Your task to perform on an android device: open app "Firefox Browser" (install if not already installed), go to login, and select forgot password Image 0: 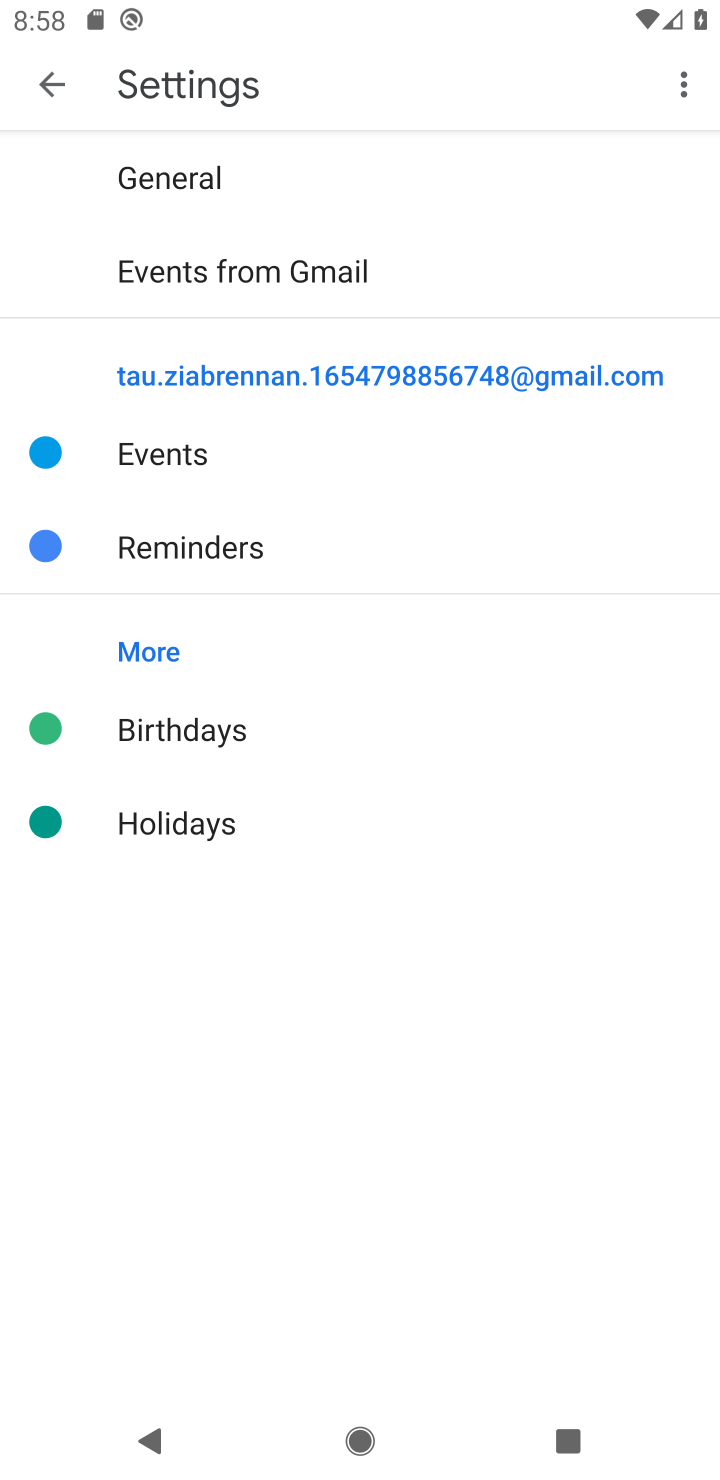
Step 0: press back button
Your task to perform on an android device: open app "Firefox Browser" (install if not already installed), go to login, and select forgot password Image 1: 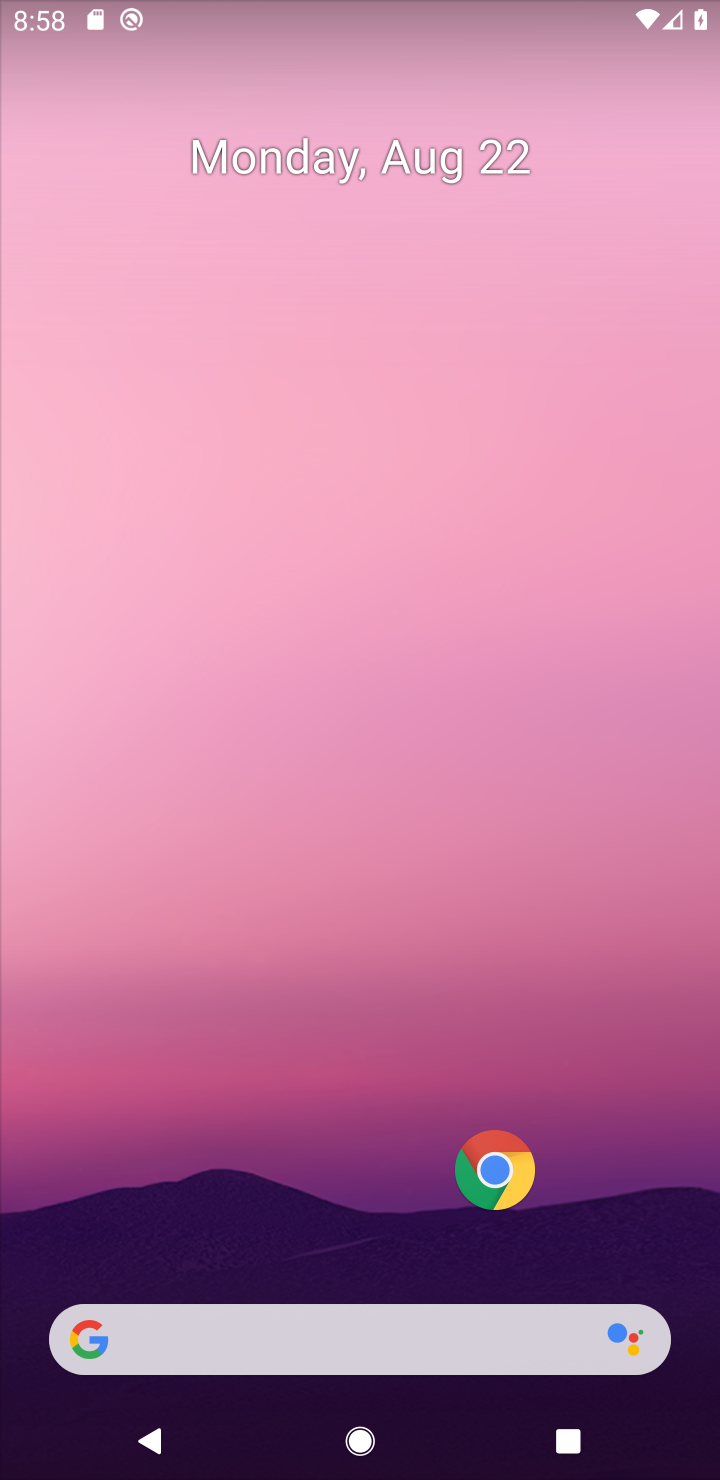
Step 1: drag from (245, 1248) to (256, 78)
Your task to perform on an android device: open app "Firefox Browser" (install if not already installed), go to login, and select forgot password Image 2: 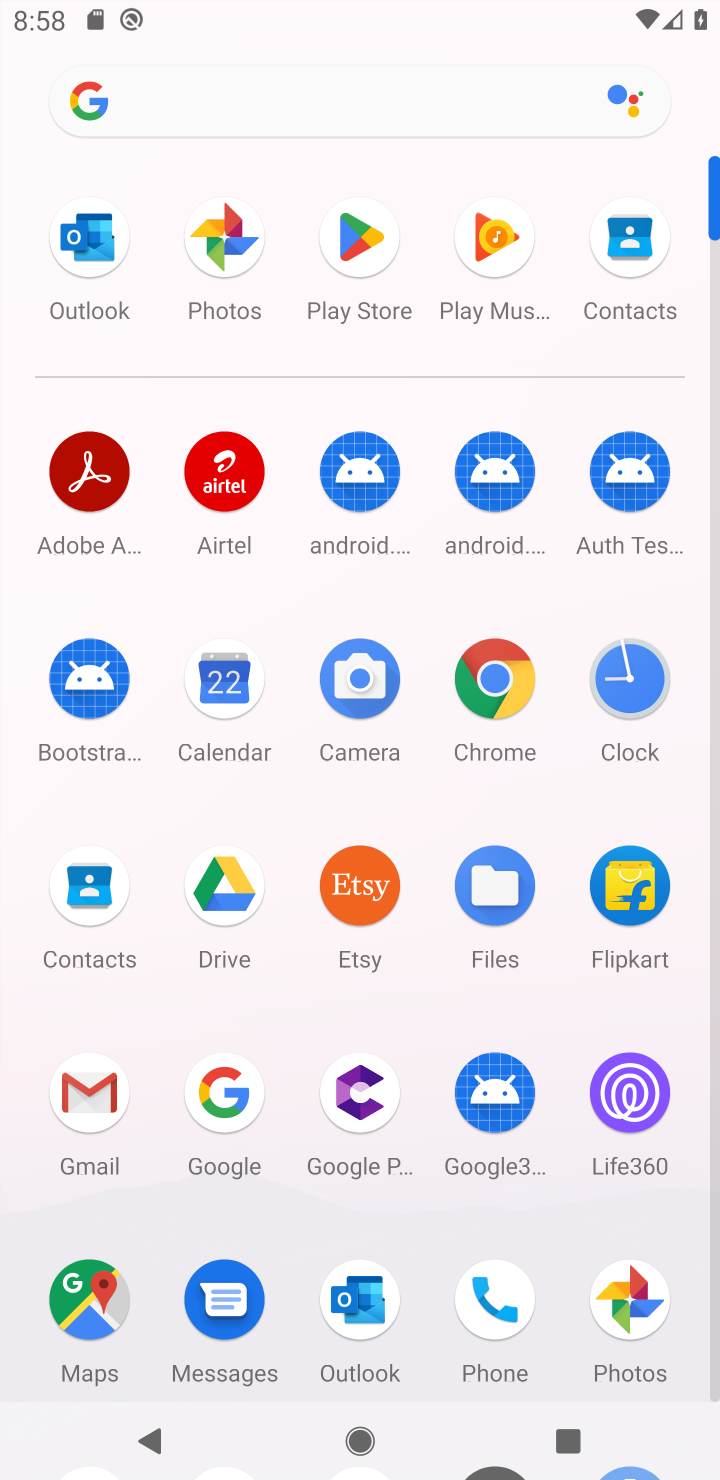
Step 2: click (350, 285)
Your task to perform on an android device: open app "Firefox Browser" (install if not already installed), go to login, and select forgot password Image 3: 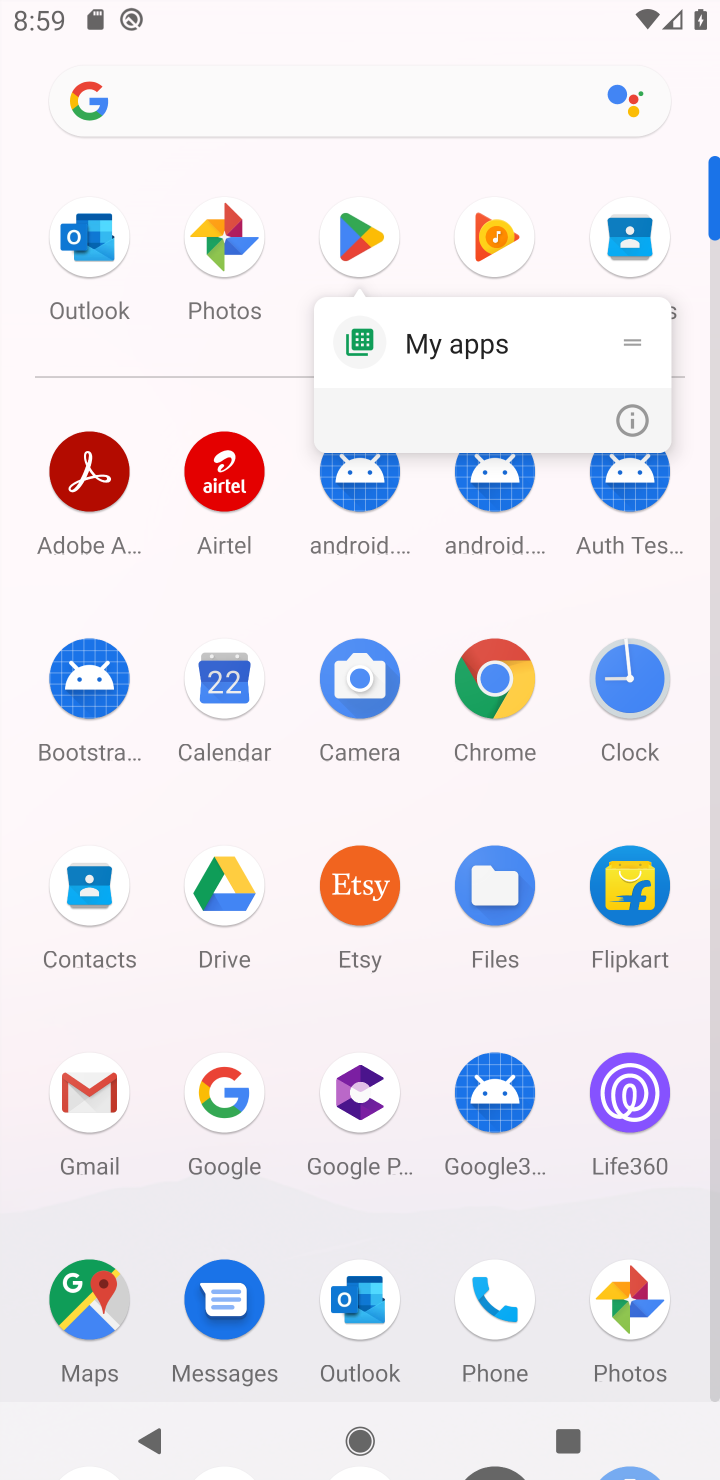
Step 3: click (370, 222)
Your task to perform on an android device: open app "Firefox Browser" (install if not already installed), go to login, and select forgot password Image 4: 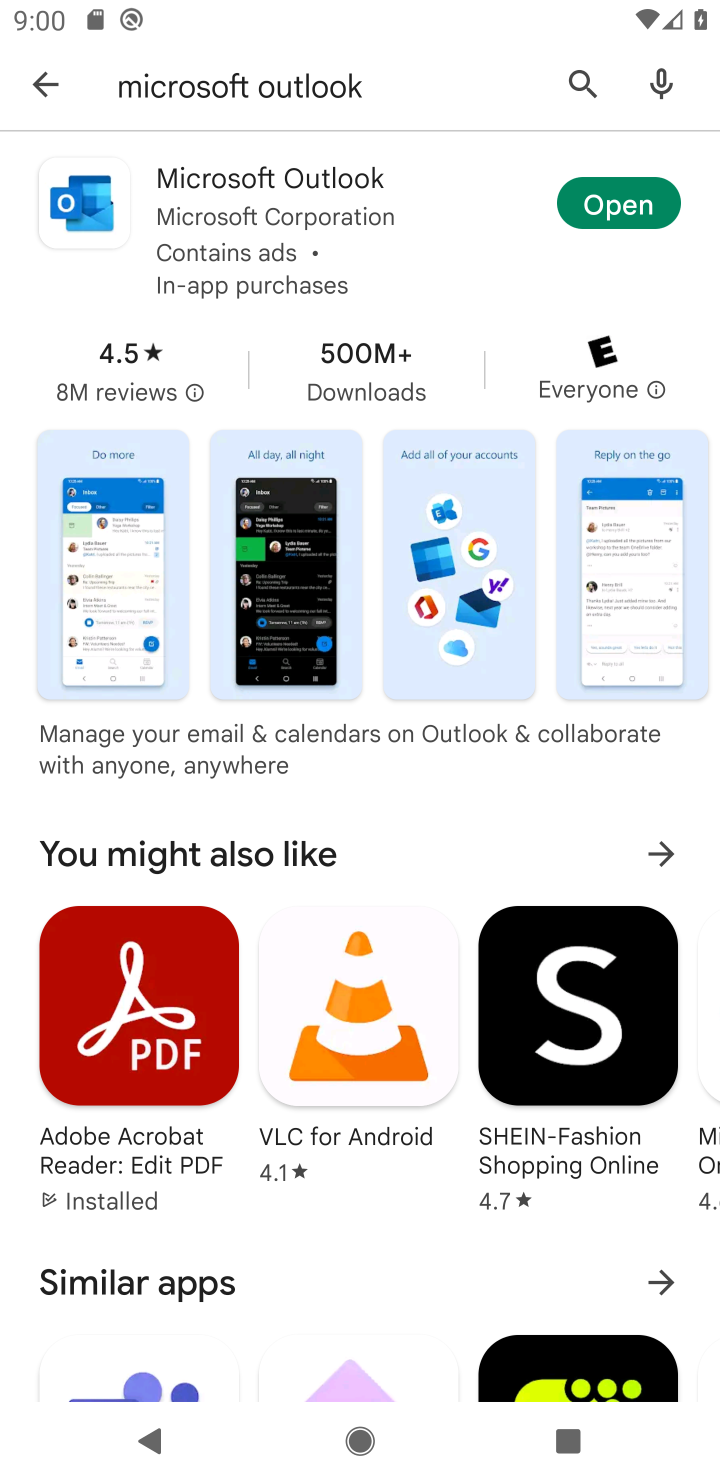
Step 4: click (592, 79)
Your task to perform on an android device: open app "Firefox Browser" (install if not already installed), go to login, and select forgot password Image 5: 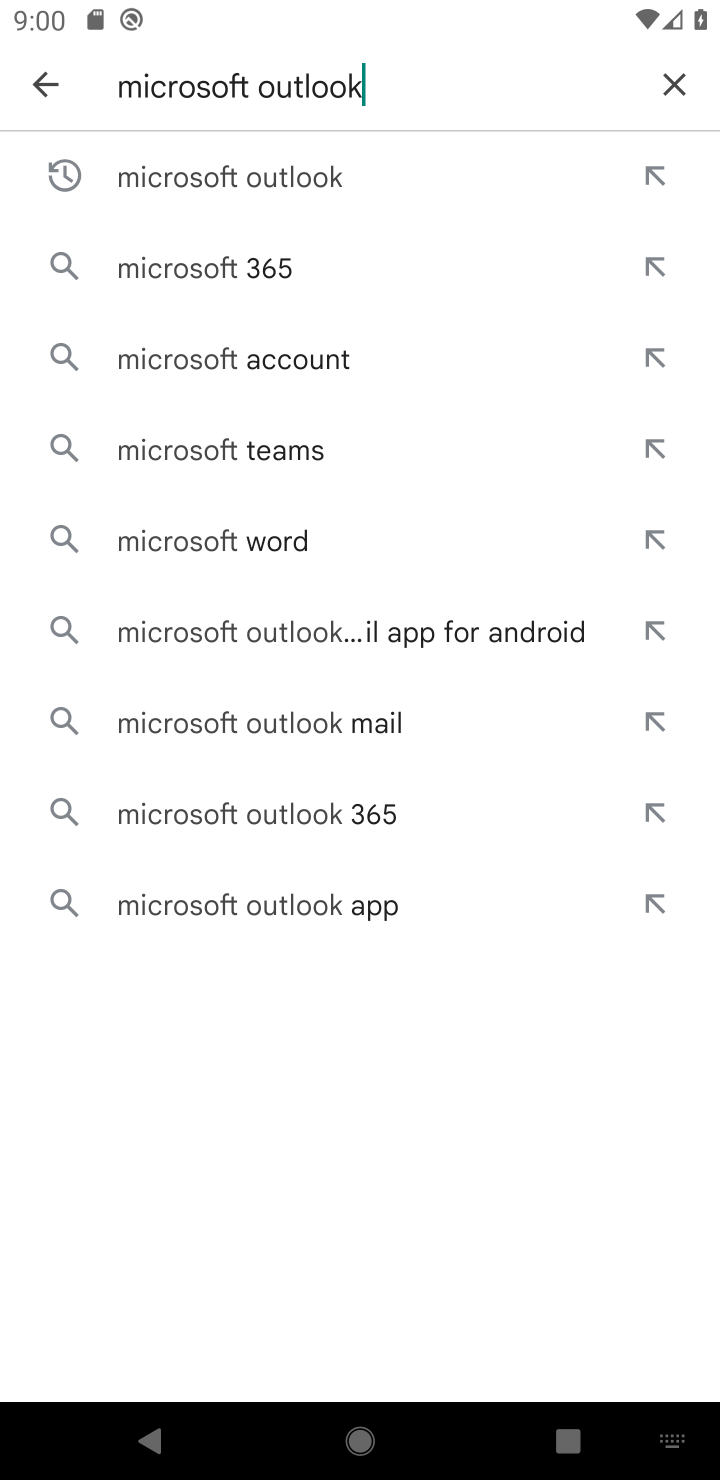
Step 5: click (664, 83)
Your task to perform on an android device: open app "Firefox Browser" (install if not already installed), go to login, and select forgot password Image 6: 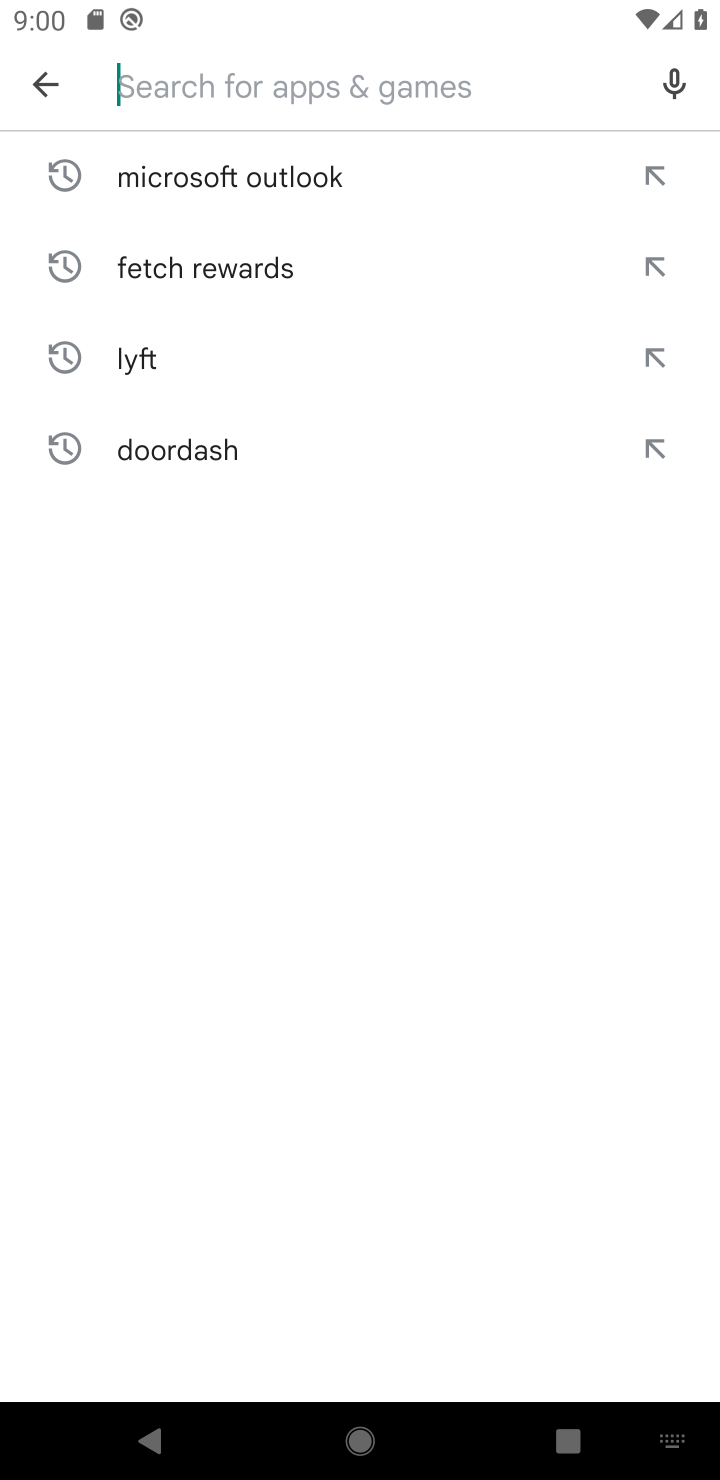
Step 6: click (269, 91)
Your task to perform on an android device: open app "Firefox Browser" (install if not already installed), go to login, and select forgot password Image 7: 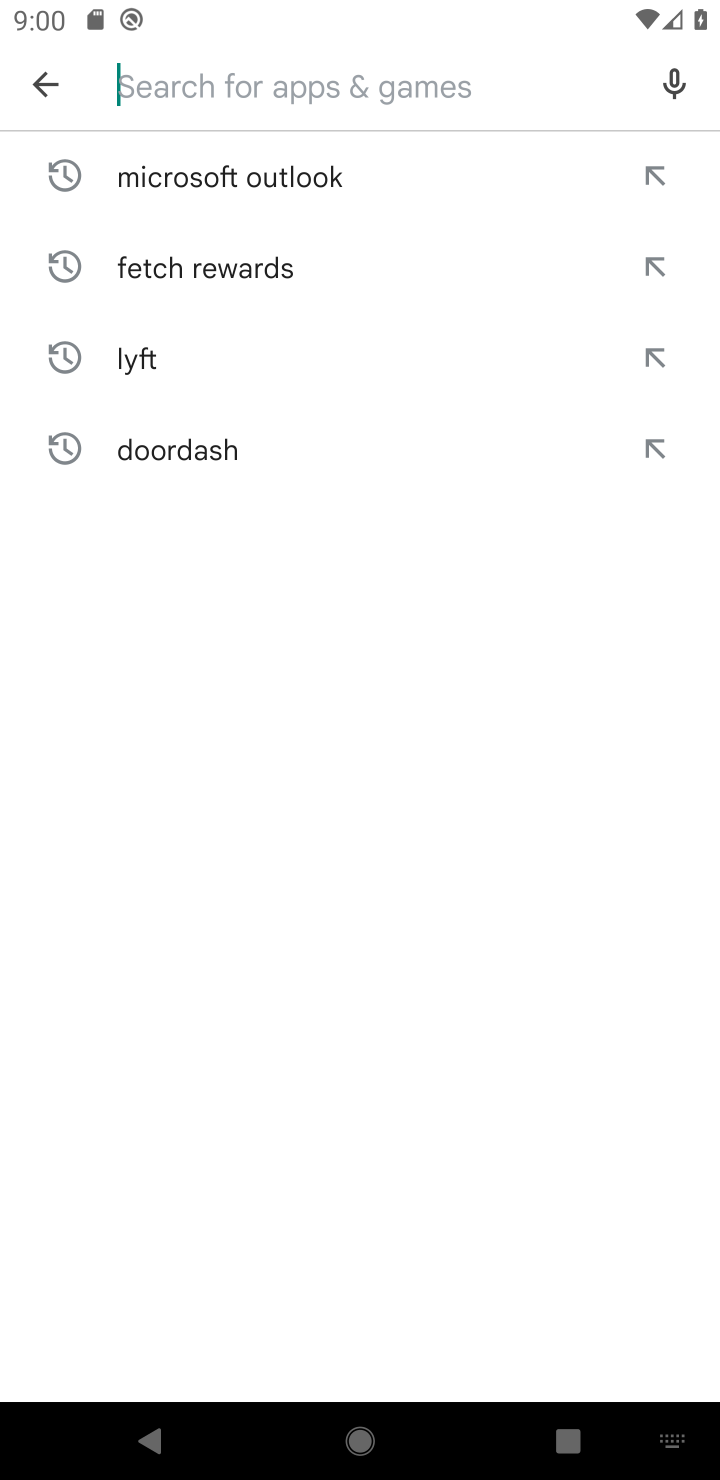
Step 7: type "Firefox Browser"
Your task to perform on an android device: open app "Firefox Browser" (install if not already installed), go to login, and select forgot password Image 8: 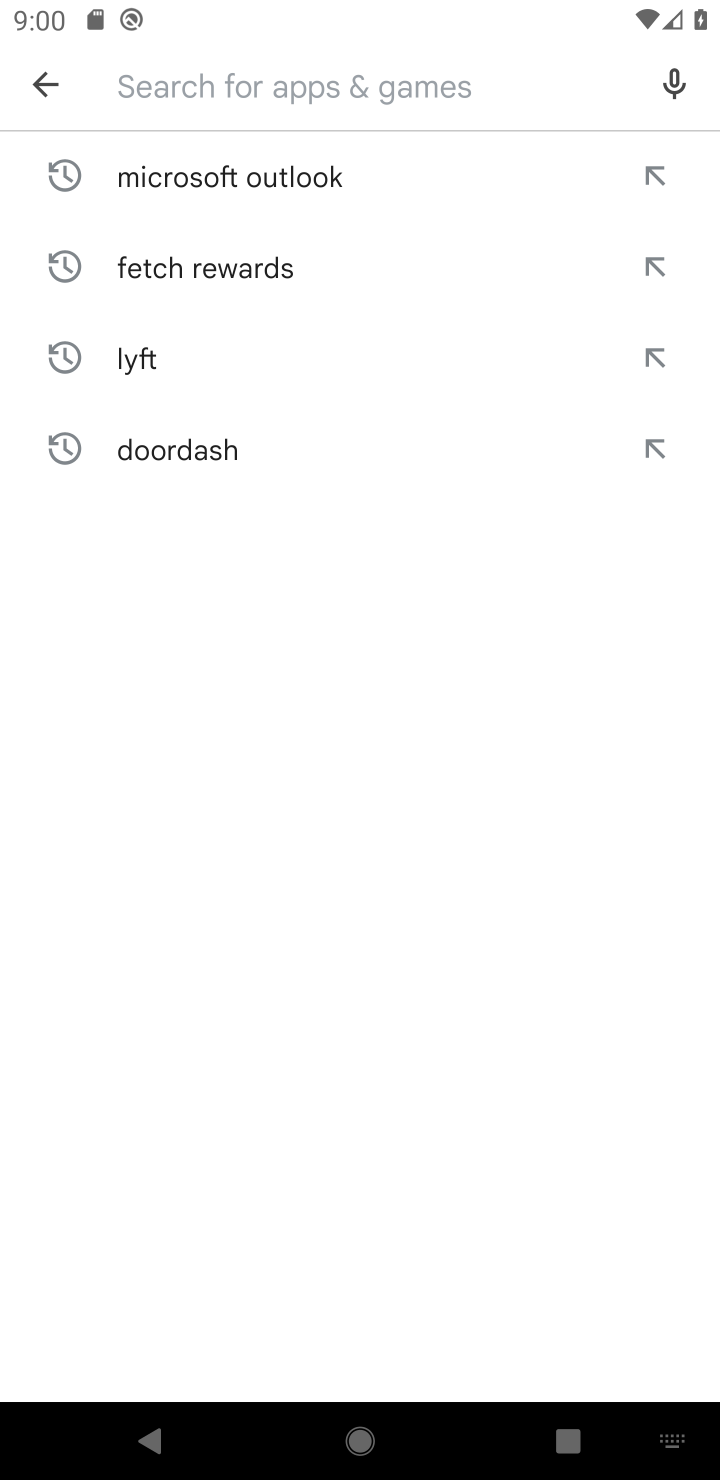
Step 8: click (355, 1065)
Your task to perform on an android device: open app "Firefox Browser" (install if not already installed), go to login, and select forgot password Image 9: 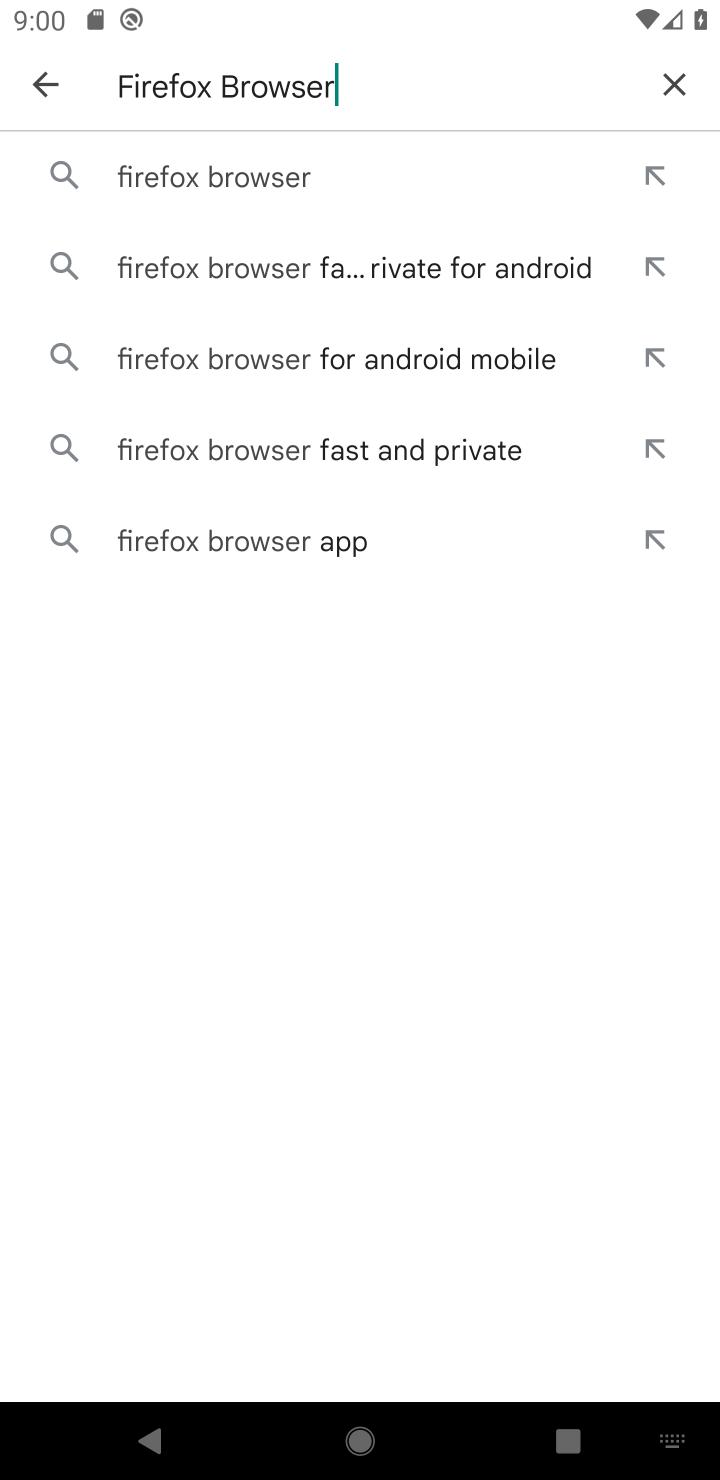
Step 9: click (248, 158)
Your task to perform on an android device: open app "Firefox Browser" (install if not already installed), go to login, and select forgot password Image 10: 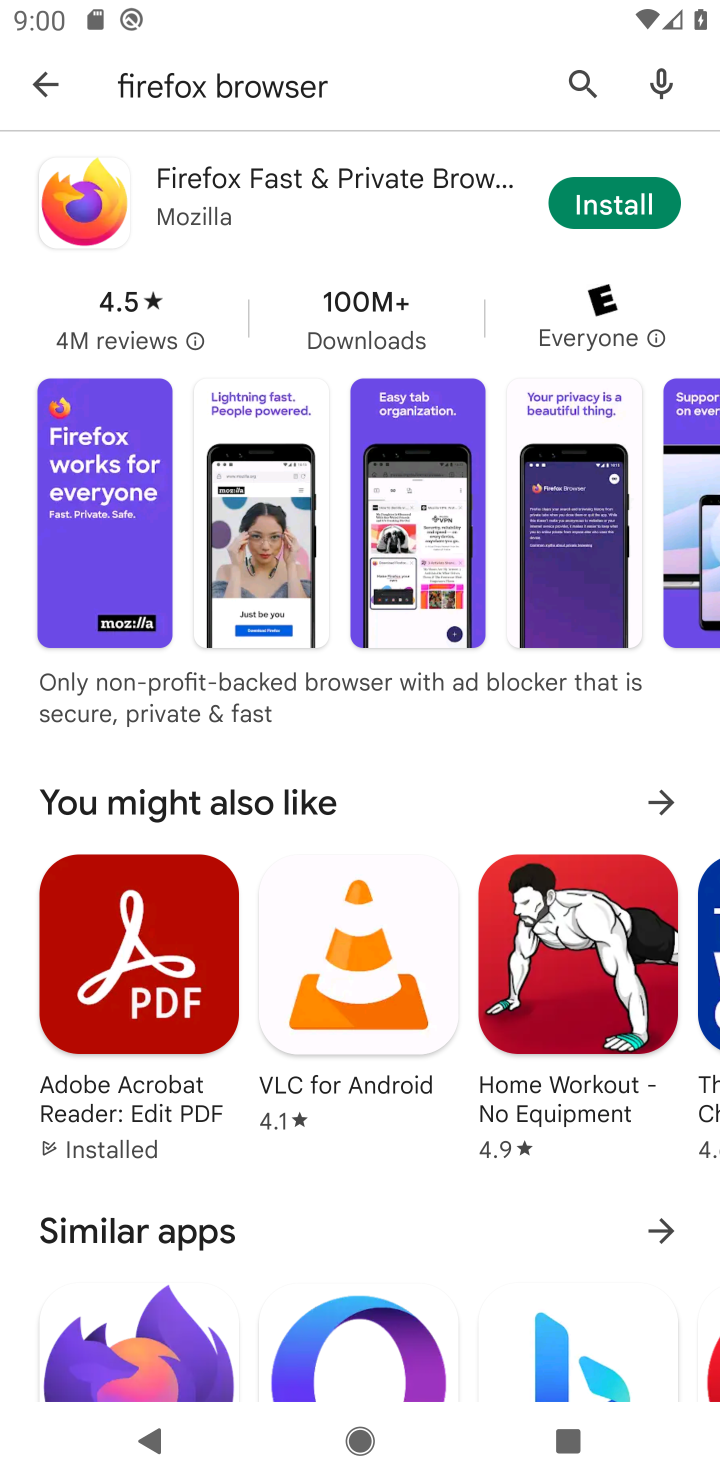
Step 10: click (607, 208)
Your task to perform on an android device: open app "Firefox Browser" (install if not already installed), go to login, and select forgot password Image 11: 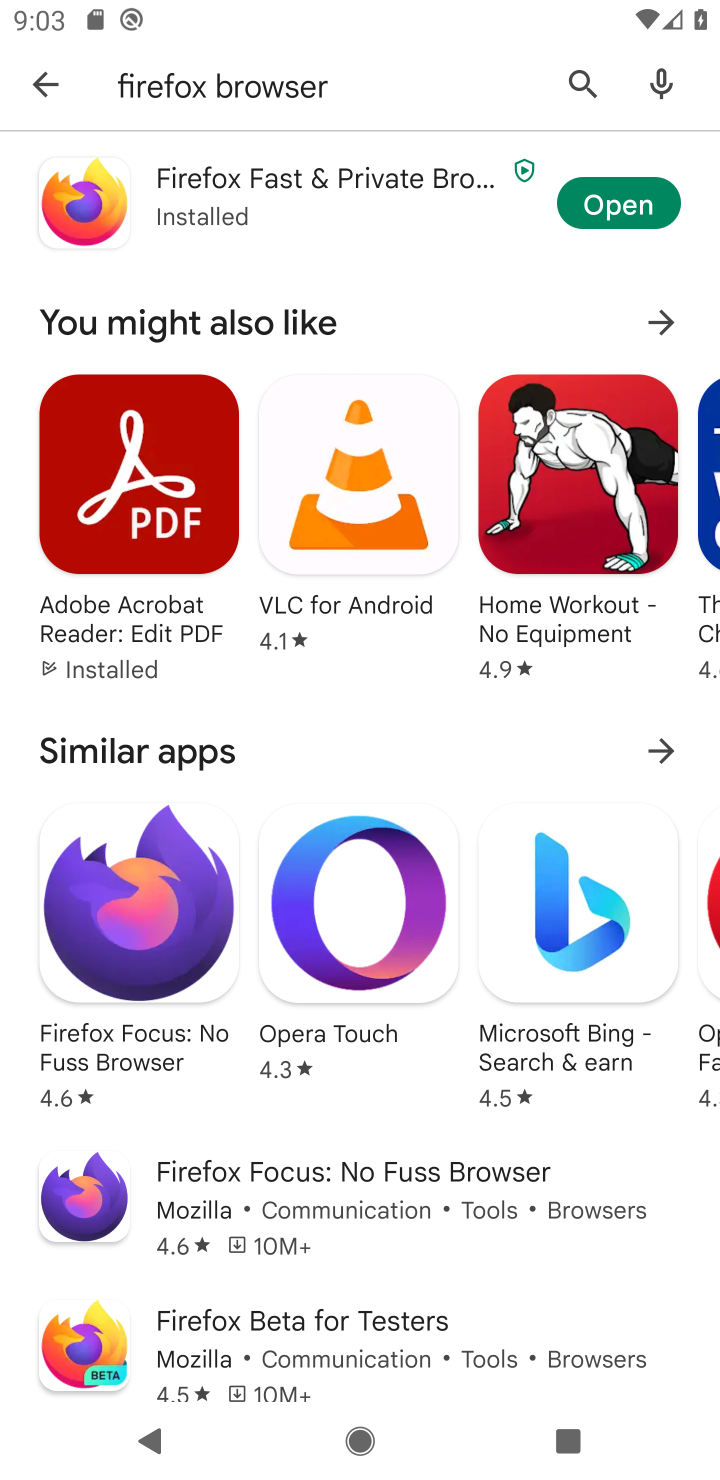
Step 11: click (613, 203)
Your task to perform on an android device: open app "Firefox Browser" (install if not already installed), go to login, and select forgot password Image 12: 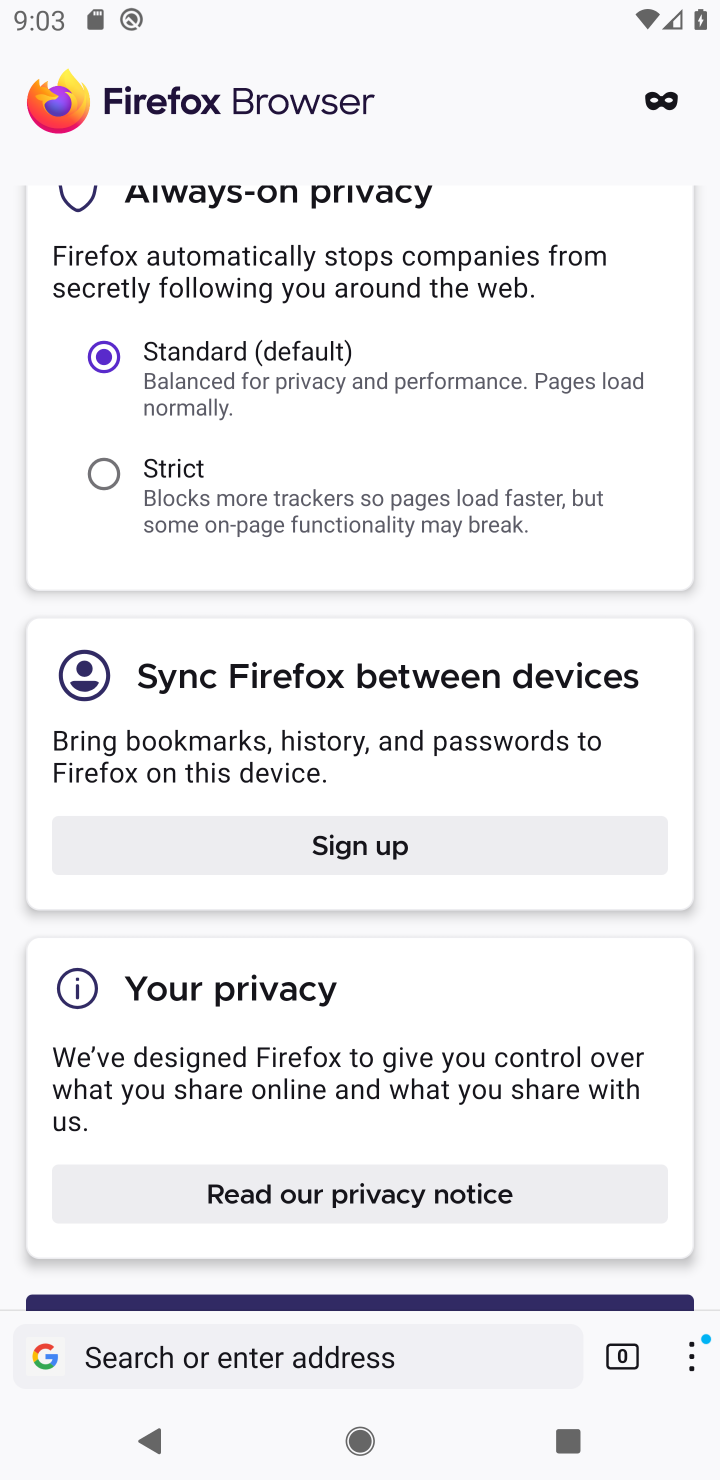
Step 12: click (313, 838)
Your task to perform on an android device: open app "Firefox Browser" (install if not already installed), go to login, and select forgot password Image 13: 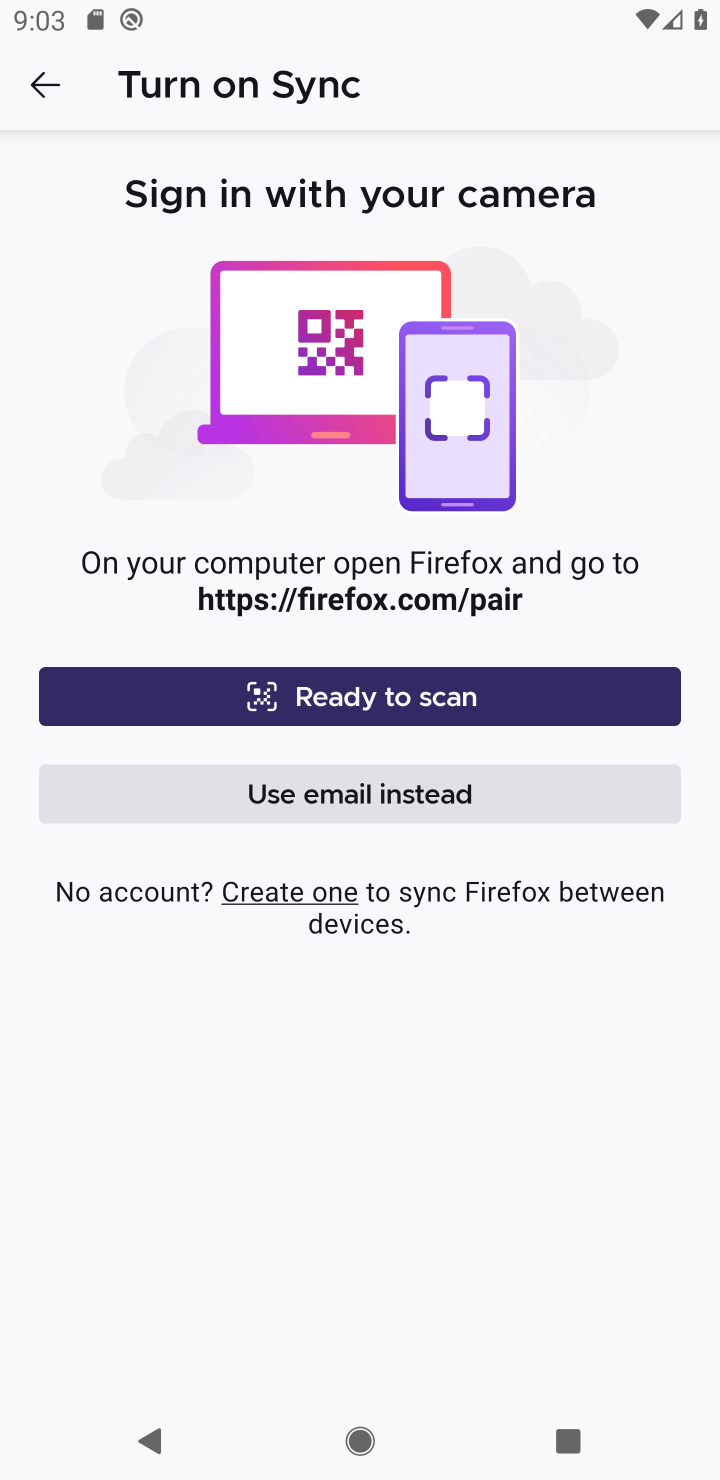
Step 13: task complete